Your task to perform on an android device: toggle improve location accuracy Image 0: 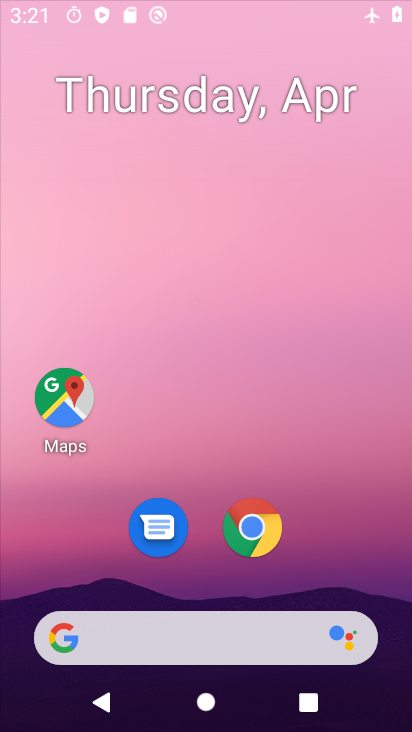
Step 0: click (328, 152)
Your task to perform on an android device: toggle improve location accuracy Image 1: 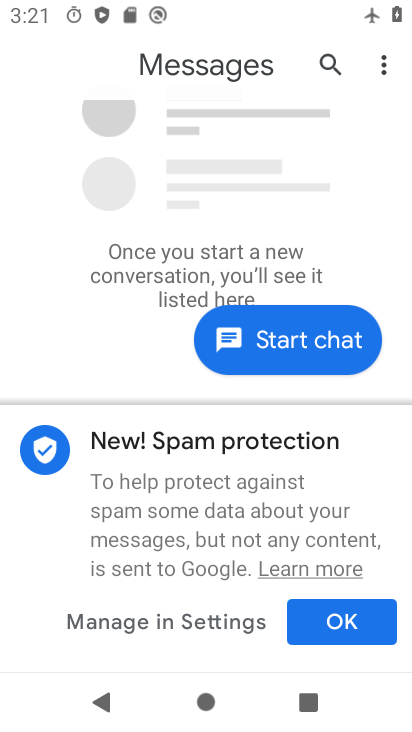
Step 1: press home button
Your task to perform on an android device: toggle improve location accuracy Image 2: 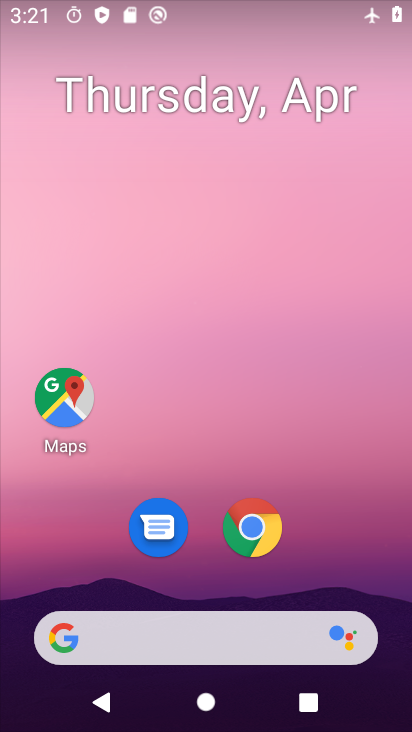
Step 2: drag from (312, 531) to (317, 141)
Your task to perform on an android device: toggle improve location accuracy Image 3: 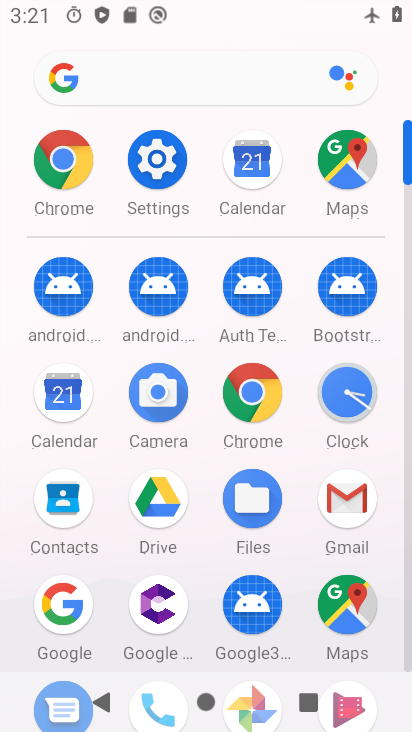
Step 3: click (157, 157)
Your task to perform on an android device: toggle improve location accuracy Image 4: 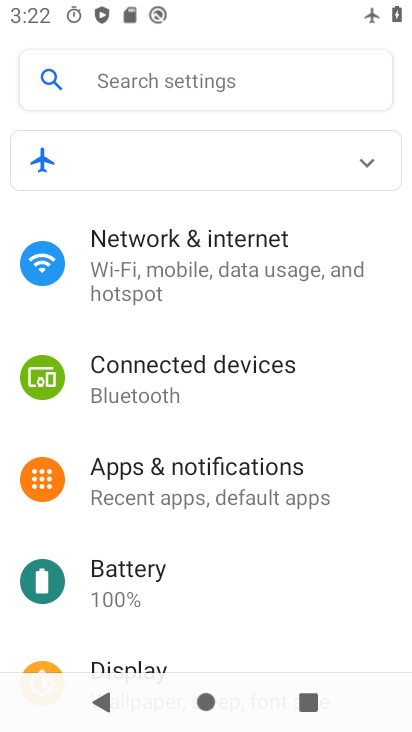
Step 4: drag from (208, 509) to (273, 171)
Your task to perform on an android device: toggle improve location accuracy Image 5: 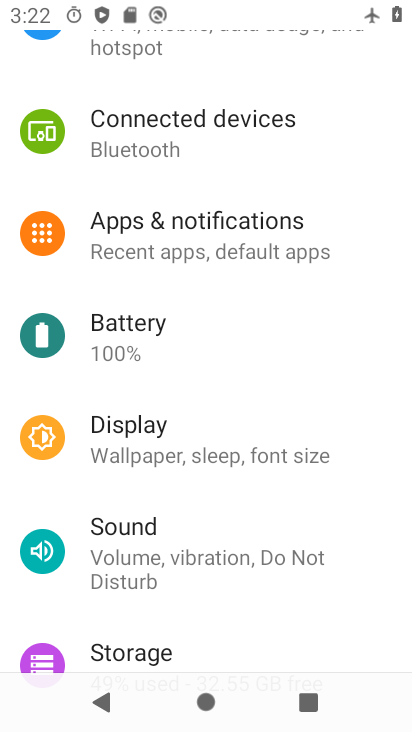
Step 5: drag from (230, 523) to (257, 253)
Your task to perform on an android device: toggle improve location accuracy Image 6: 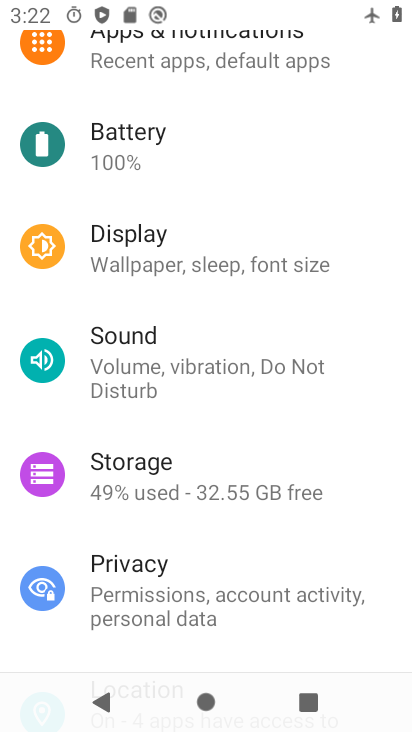
Step 6: drag from (217, 301) to (210, 565)
Your task to perform on an android device: toggle improve location accuracy Image 7: 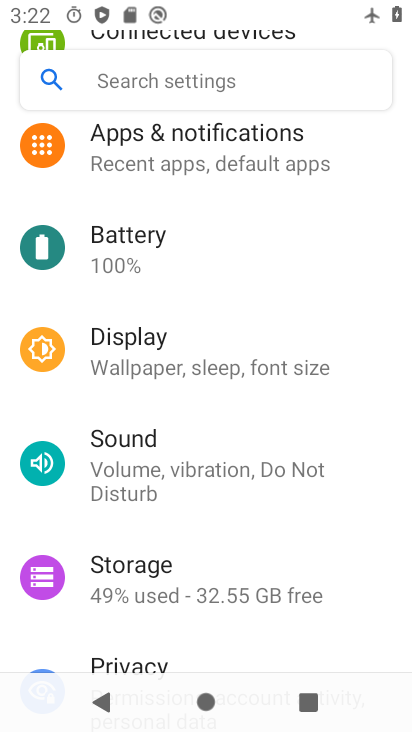
Step 7: drag from (222, 483) to (238, 203)
Your task to perform on an android device: toggle improve location accuracy Image 8: 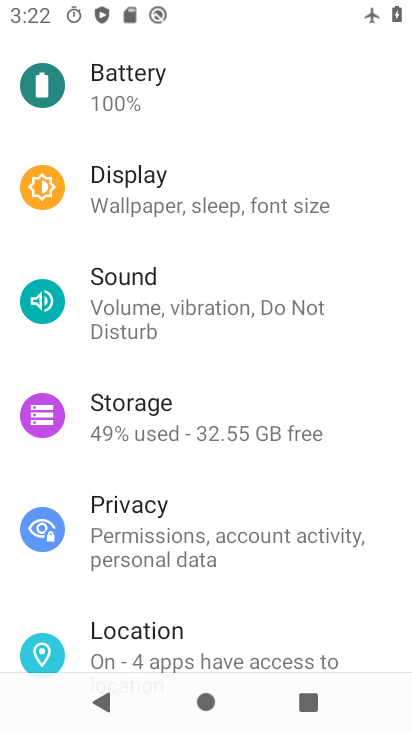
Step 8: drag from (229, 367) to (245, 238)
Your task to perform on an android device: toggle improve location accuracy Image 9: 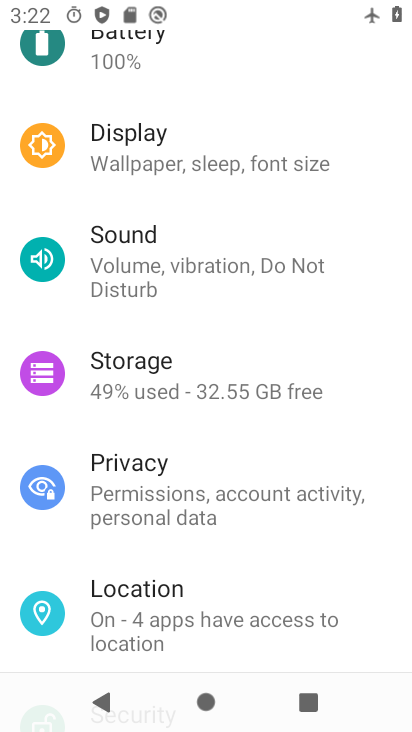
Step 9: drag from (269, 492) to (293, 252)
Your task to perform on an android device: toggle improve location accuracy Image 10: 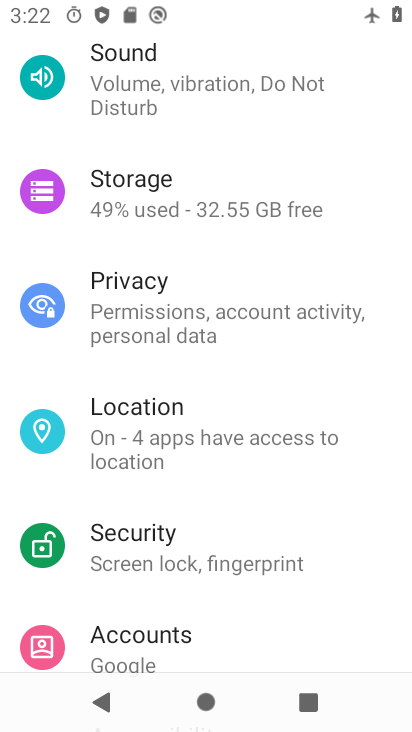
Step 10: click (158, 436)
Your task to perform on an android device: toggle improve location accuracy Image 11: 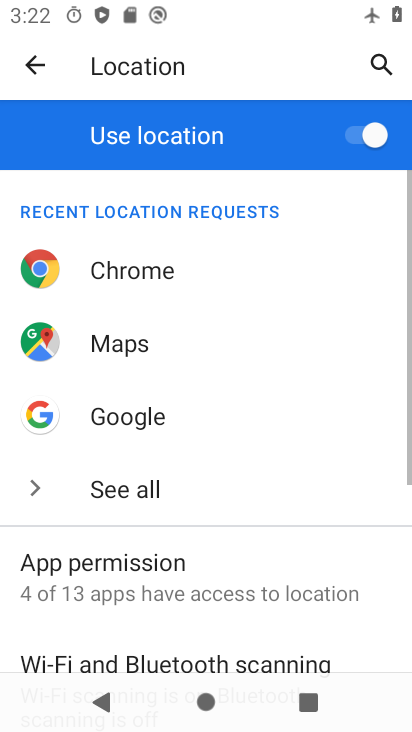
Step 11: drag from (255, 604) to (327, 271)
Your task to perform on an android device: toggle improve location accuracy Image 12: 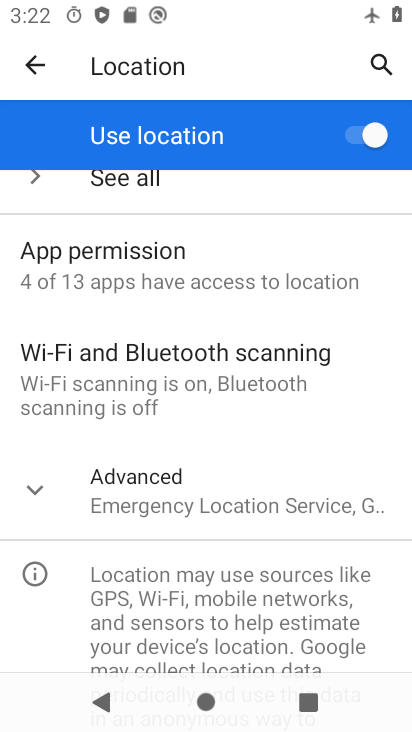
Step 12: click (196, 477)
Your task to perform on an android device: toggle improve location accuracy Image 13: 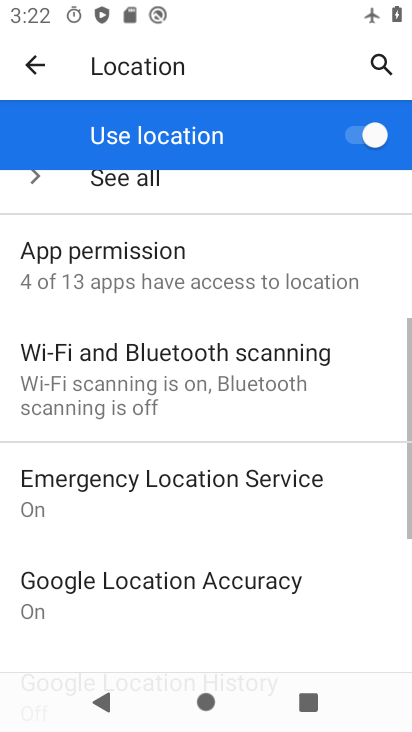
Step 13: drag from (287, 536) to (314, 265)
Your task to perform on an android device: toggle improve location accuracy Image 14: 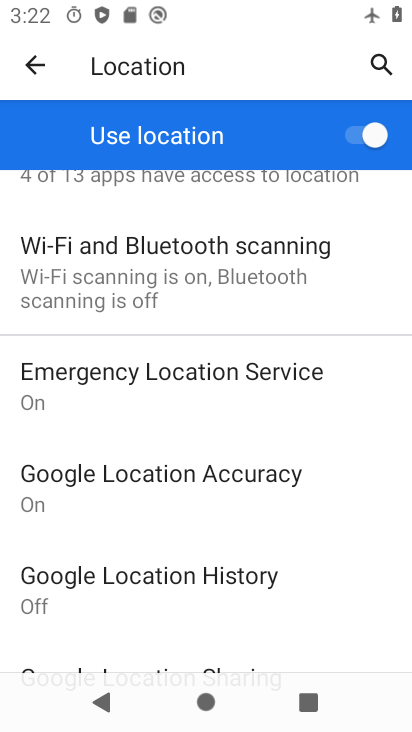
Step 14: click (187, 462)
Your task to perform on an android device: toggle improve location accuracy Image 15: 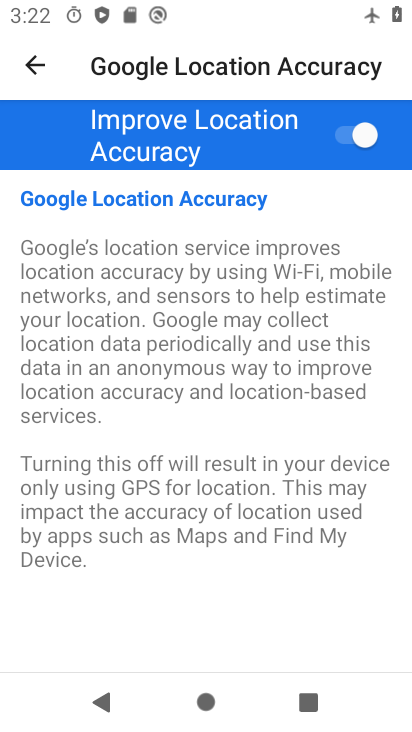
Step 15: click (334, 142)
Your task to perform on an android device: toggle improve location accuracy Image 16: 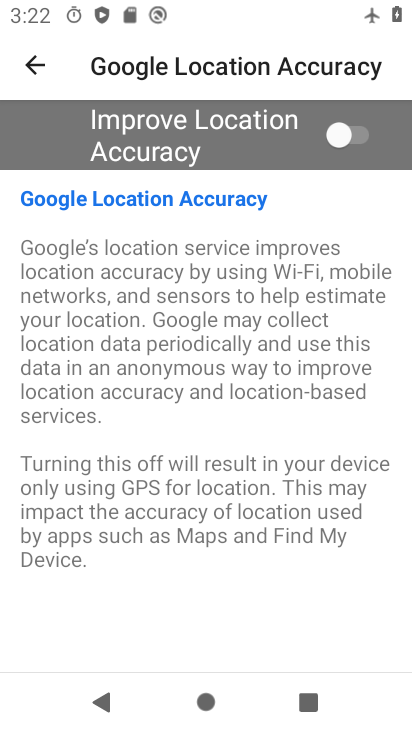
Step 16: task complete